Your task to perform on an android device: remove spam from my inbox in the gmail app Image 0: 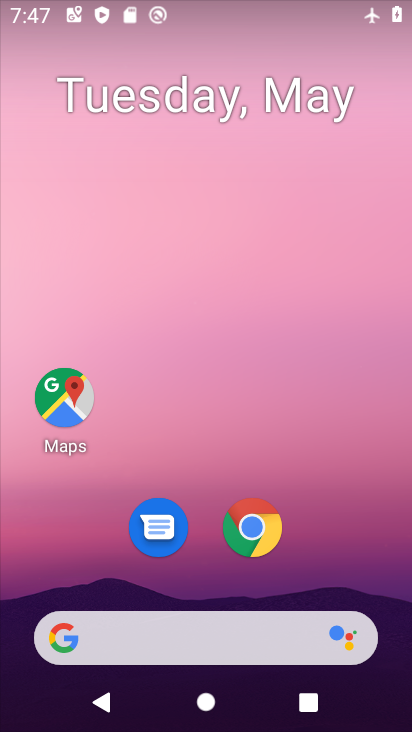
Step 0: drag from (331, 570) to (224, 208)
Your task to perform on an android device: remove spam from my inbox in the gmail app Image 1: 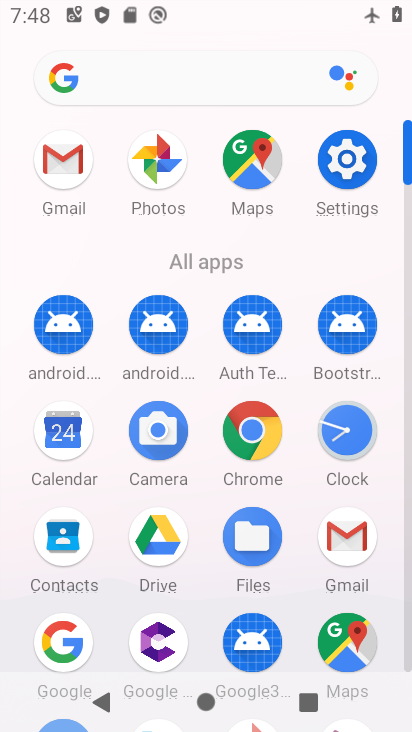
Step 1: click (59, 157)
Your task to perform on an android device: remove spam from my inbox in the gmail app Image 2: 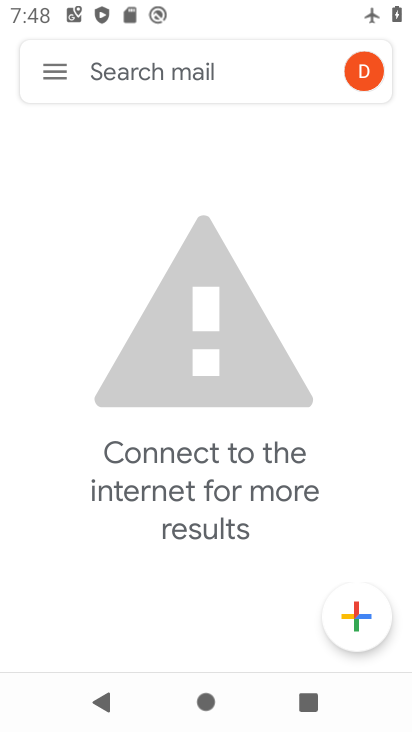
Step 2: click (52, 77)
Your task to perform on an android device: remove spam from my inbox in the gmail app Image 3: 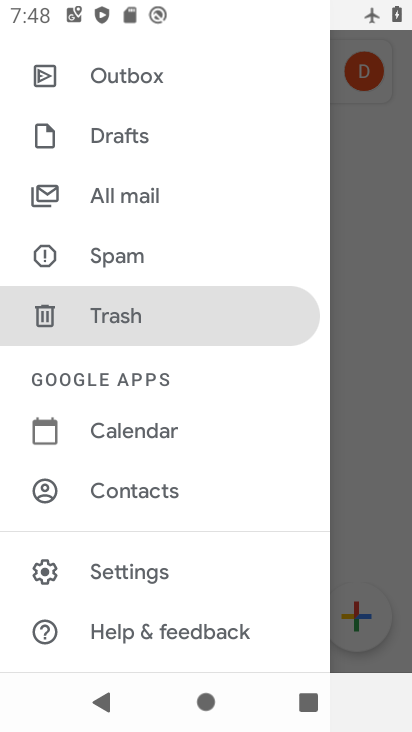
Step 3: click (124, 254)
Your task to perform on an android device: remove spam from my inbox in the gmail app Image 4: 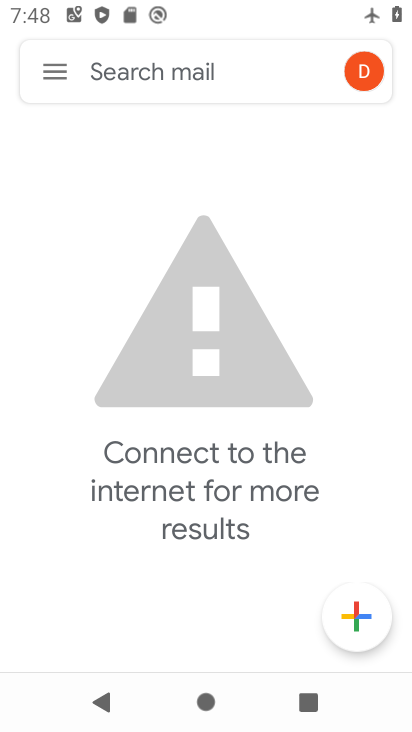
Step 4: task complete